Your task to perform on an android device: Open Android settings Image 0: 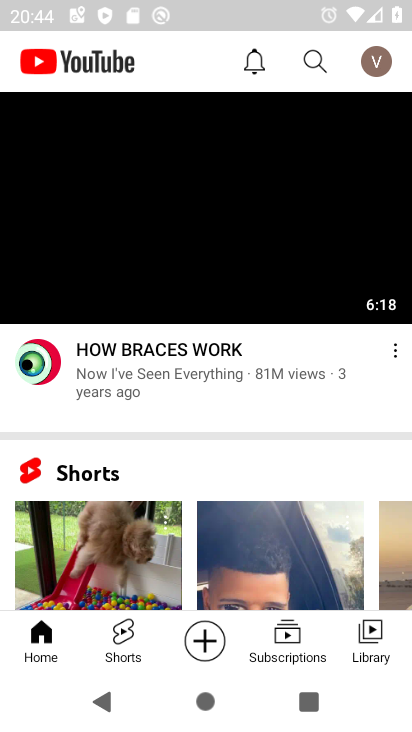
Step 0: press home button
Your task to perform on an android device: Open Android settings Image 1: 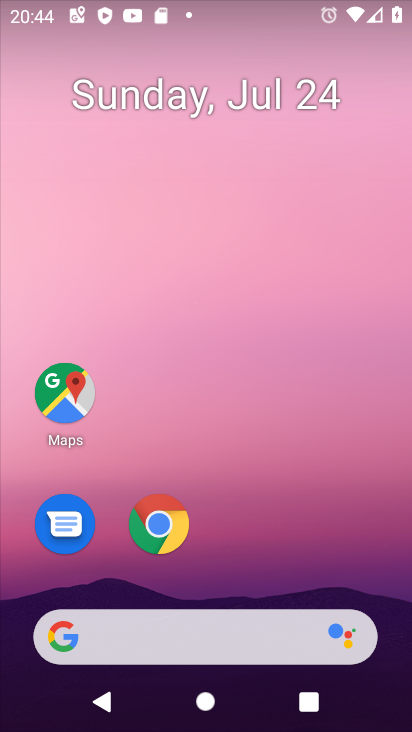
Step 1: drag from (270, 552) to (269, 26)
Your task to perform on an android device: Open Android settings Image 2: 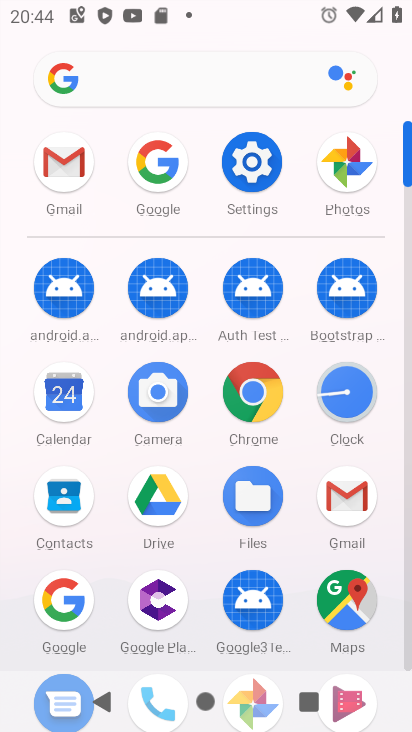
Step 2: click (260, 155)
Your task to perform on an android device: Open Android settings Image 3: 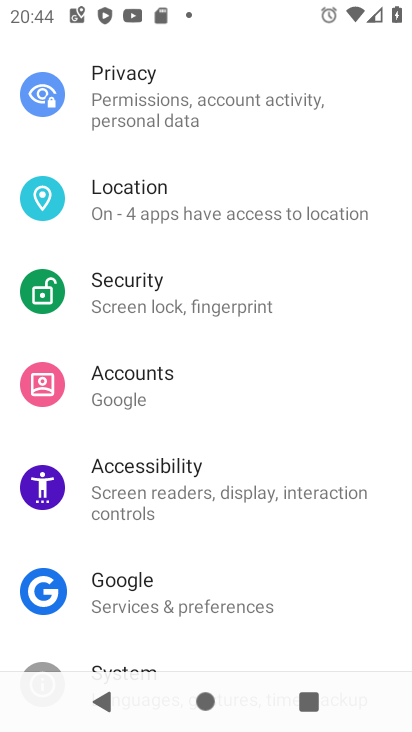
Step 3: drag from (250, 627) to (214, 55)
Your task to perform on an android device: Open Android settings Image 4: 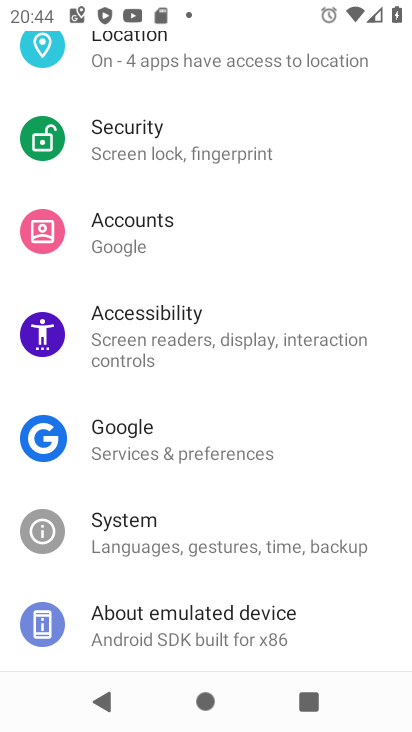
Step 4: click (228, 615)
Your task to perform on an android device: Open Android settings Image 5: 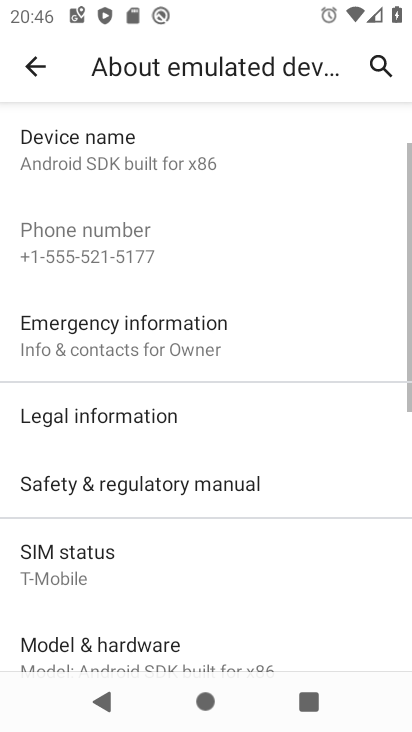
Step 5: task complete